Your task to perform on an android device: Go to wifi settings Image 0: 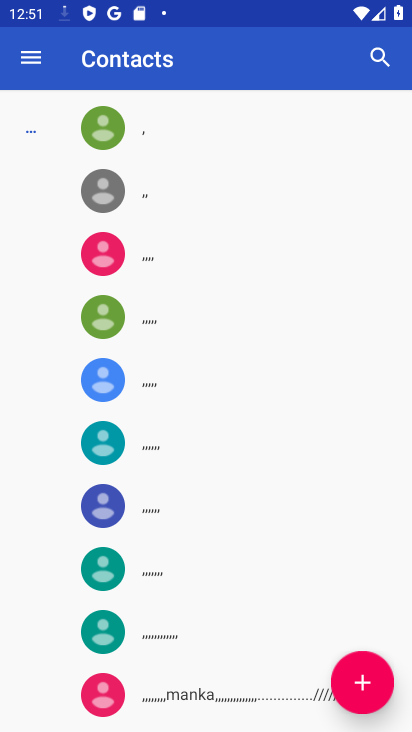
Step 0: press home button
Your task to perform on an android device: Go to wifi settings Image 1: 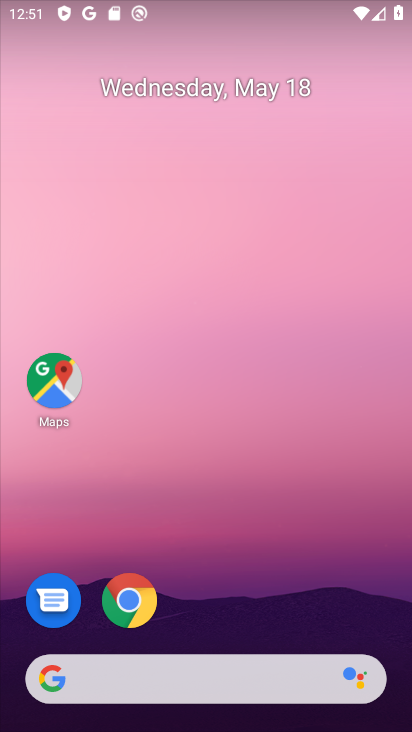
Step 1: drag from (236, 624) to (295, 181)
Your task to perform on an android device: Go to wifi settings Image 2: 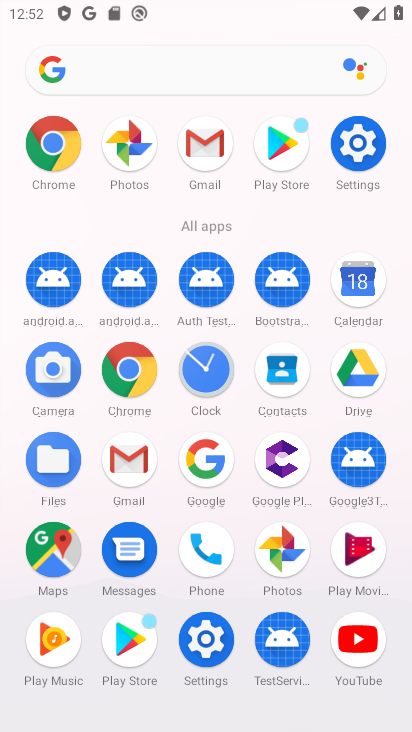
Step 2: click (209, 634)
Your task to perform on an android device: Go to wifi settings Image 3: 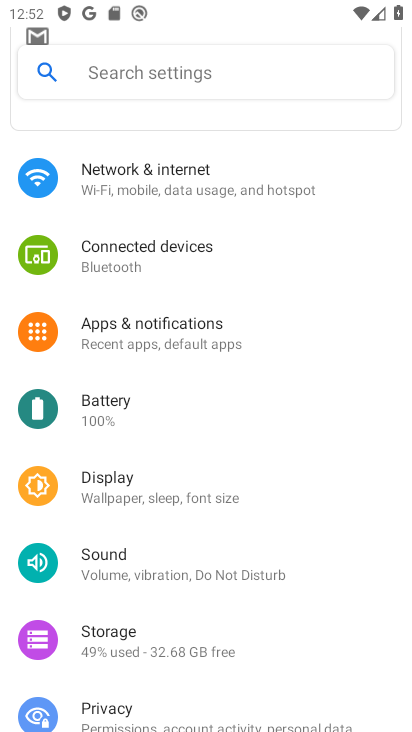
Step 3: click (227, 194)
Your task to perform on an android device: Go to wifi settings Image 4: 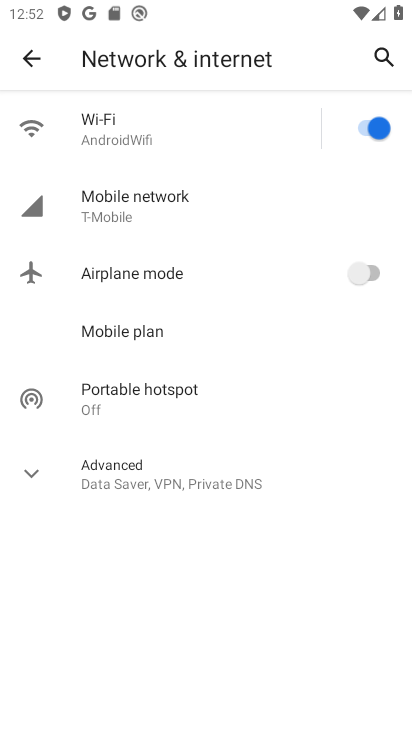
Step 4: click (163, 122)
Your task to perform on an android device: Go to wifi settings Image 5: 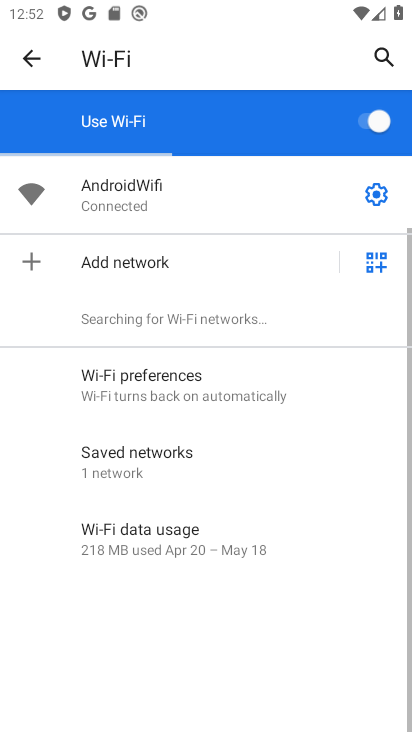
Step 5: task complete